Your task to perform on an android device: Is it going to rain this weekend? Image 0: 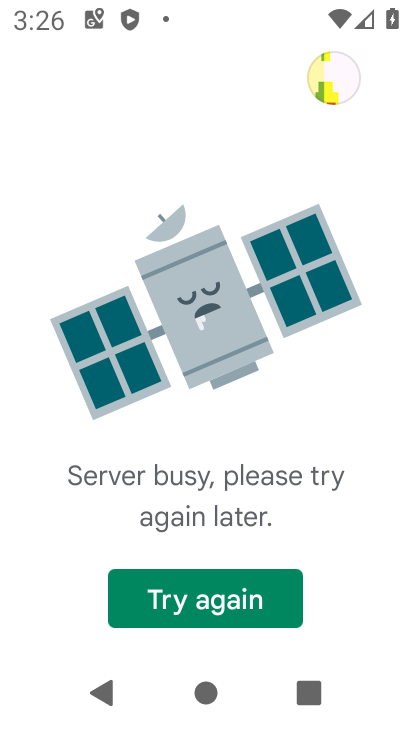
Step 0: press home button
Your task to perform on an android device: Is it going to rain this weekend? Image 1: 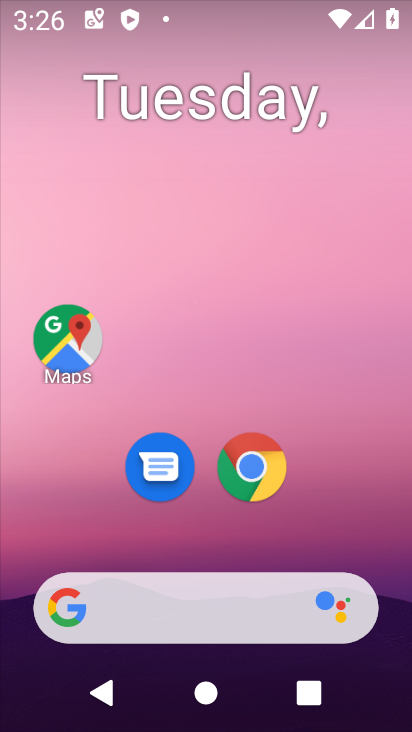
Step 1: click (216, 587)
Your task to perform on an android device: Is it going to rain this weekend? Image 2: 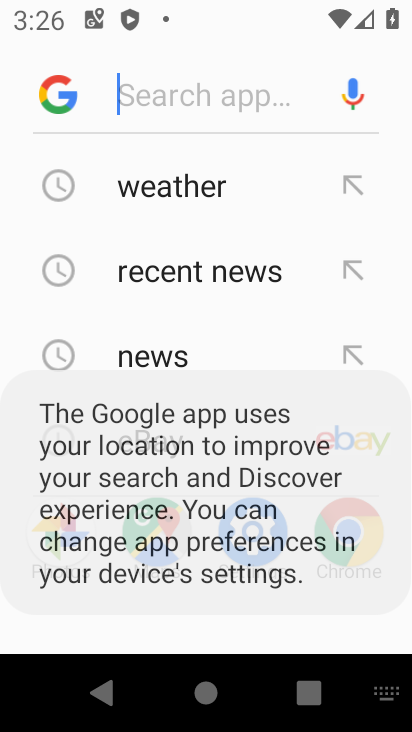
Step 2: click (166, 187)
Your task to perform on an android device: Is it going to rain this weekend? Image 3: 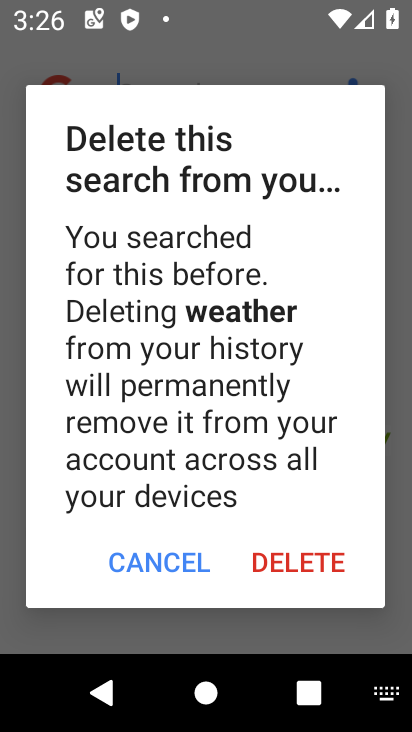
Step 3: click (145, 573)
Your task to perform on an android device: Is it going to rain this weekend? Image 4: 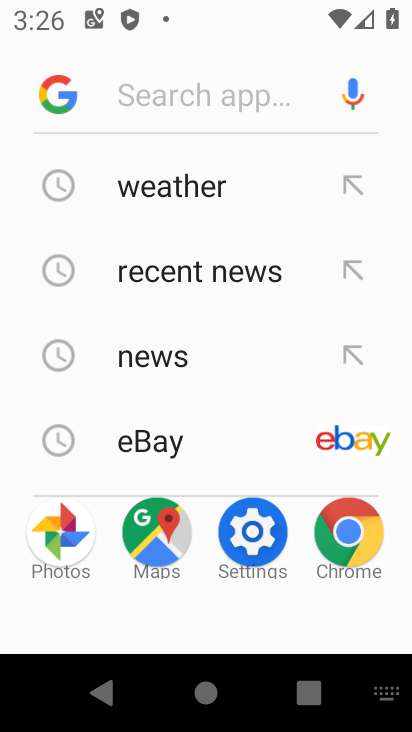
Step 4: click (149, 166)
Your task to perform on an android device: Is it going to rain this weekend? Image 5: 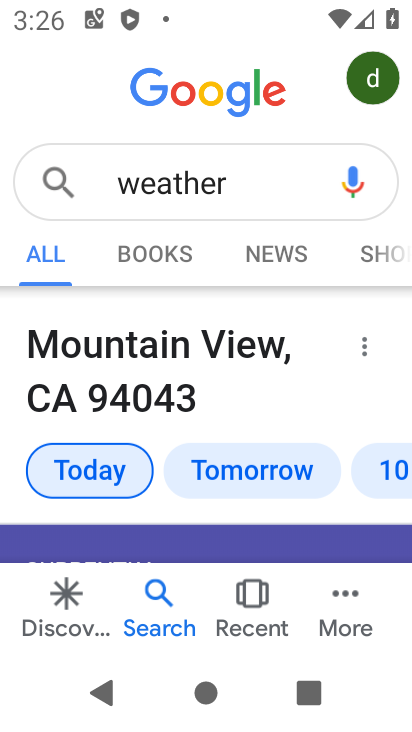
Step 5: task complete